Your task to perform on an android device: Open Google Maps and go to "Timeline" Image 0: 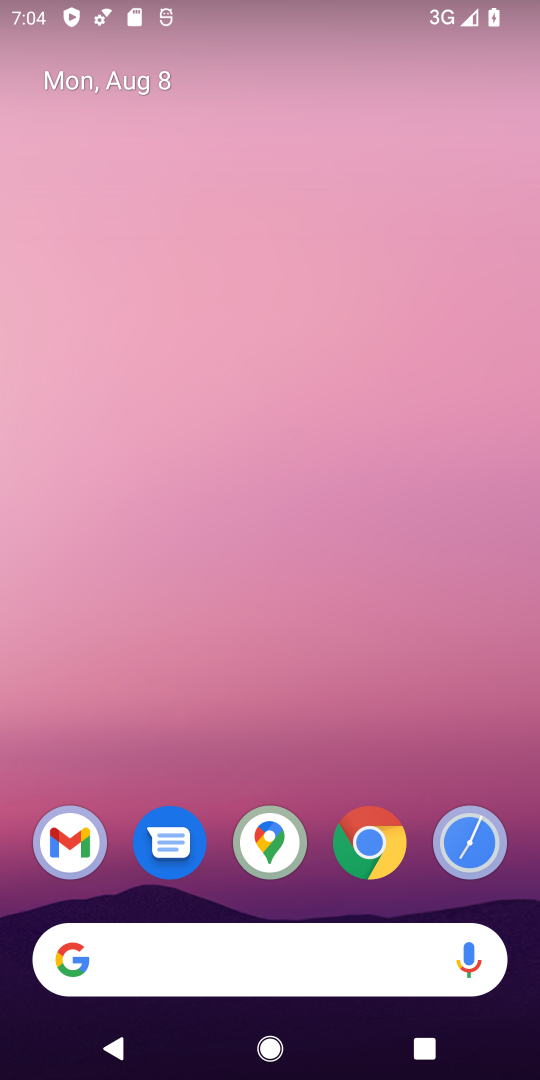
Step 0: click (261, 863)
Your task to perform on an android device: Open Google Maps and go to "Timeline" Image 1: 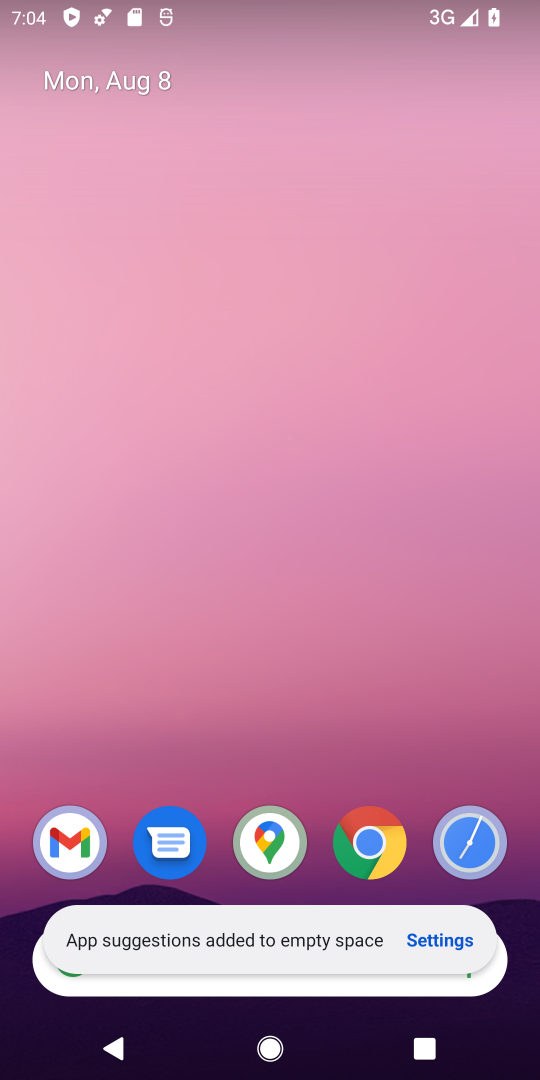
Step 1: click (260, 846)
Your task to perform on an android device: Open Google Maps and go to "Timeline" Image 2: 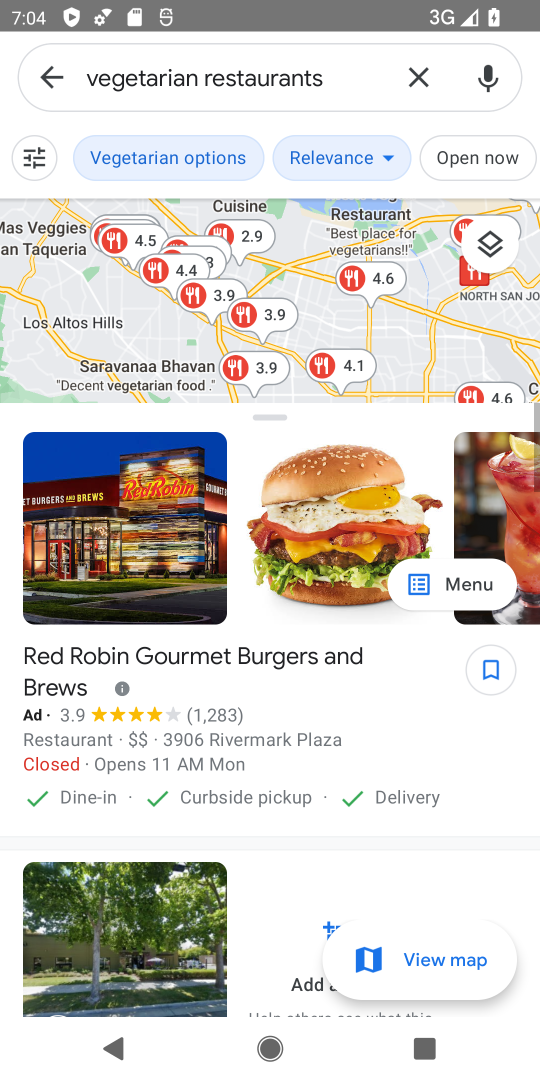
Step 2: click (42, 83)
Your task to perform on an android device: Open Google Maps and go to "Timeline" Image 3: 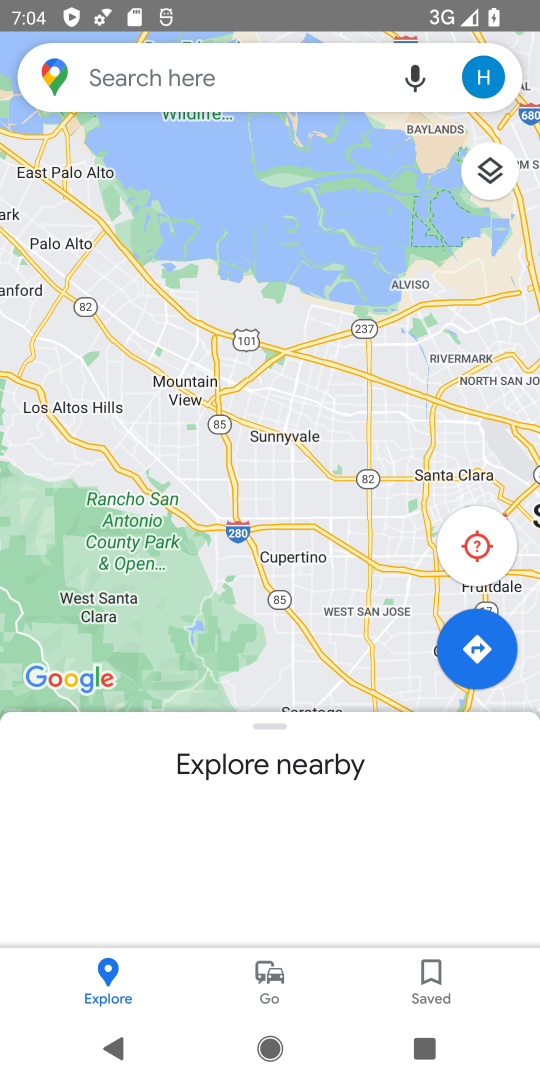
Step 3: click (42, 83)
Your task to perform on an android device: Open Google Maps and go to "Timeline" Image 4: 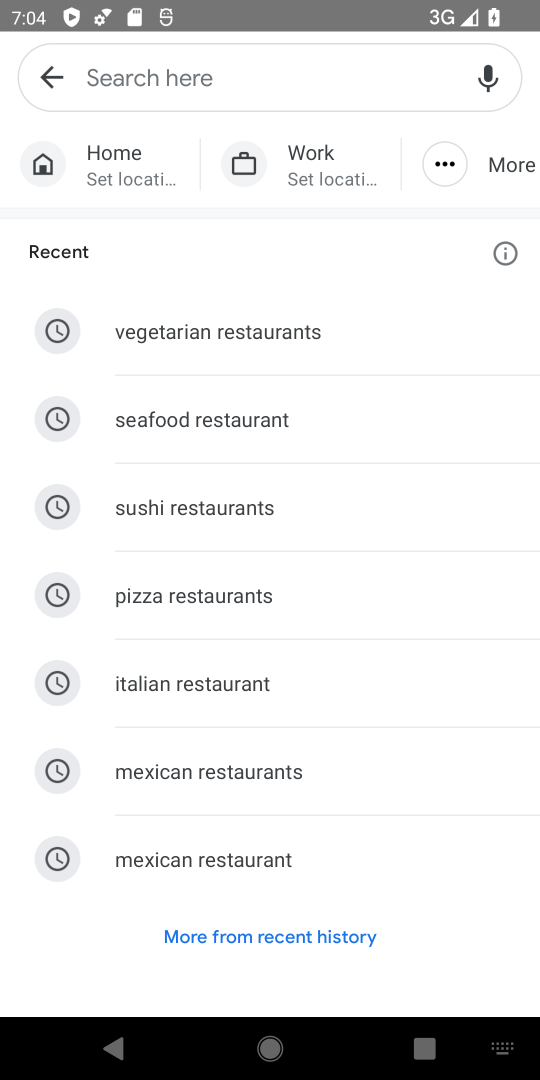
Step 4: click (42, 83)
Your task to perform on an android device: Open Google Maps and go to "Timeline" Image 5: 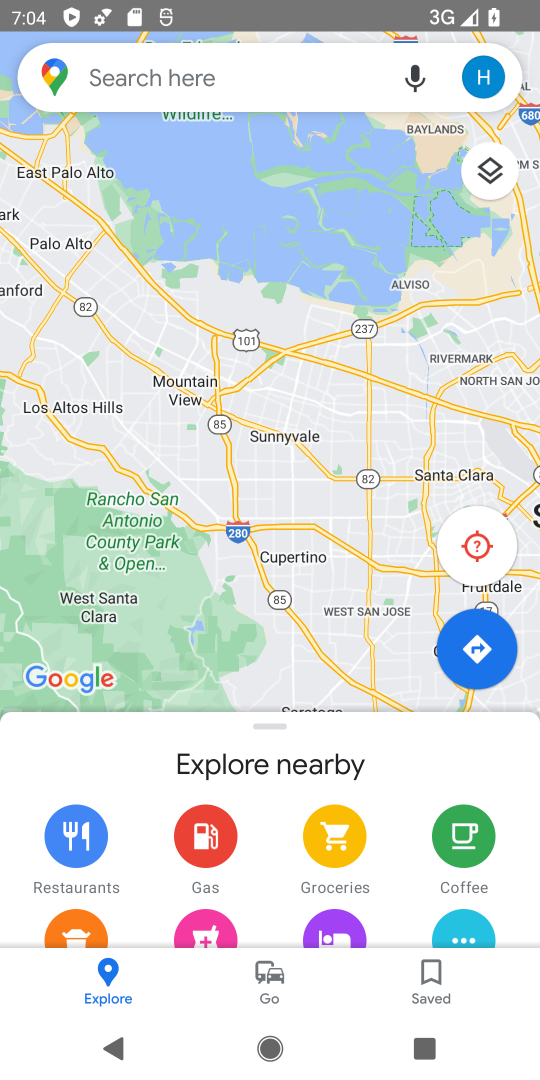
Step 5: task complete